Your task to perform on an android device: Open the calendar and show me this week's events? Image 0: 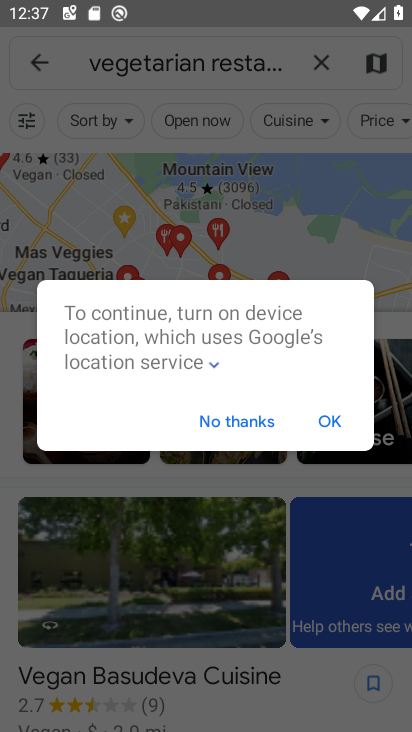
Step 0: press home button
Your task to perform on an android device: Open the calendar and show me this week's events? Image 1: 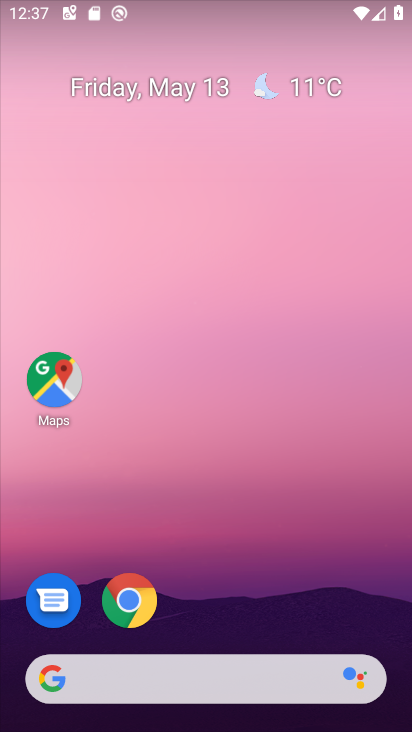
Step 1: drag from (219, 605) to (225, 181)
Your task to perform on an android device: Open the calendar and show me this week's events? Image 2: 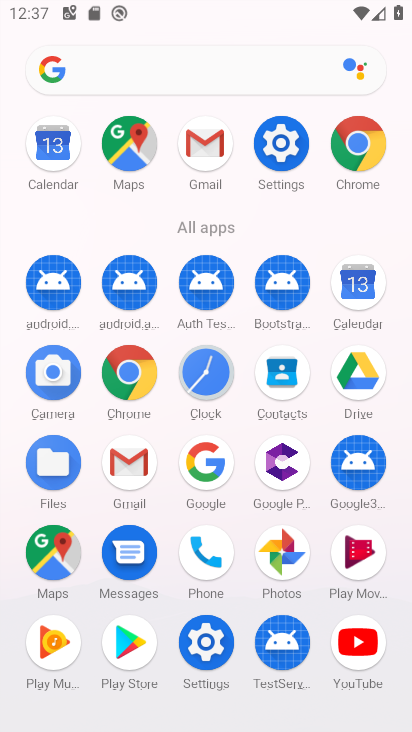
Step 2: click (348, 279)
Your task to perform on an android device: Open the calendar and show me this week's events? Image 3: 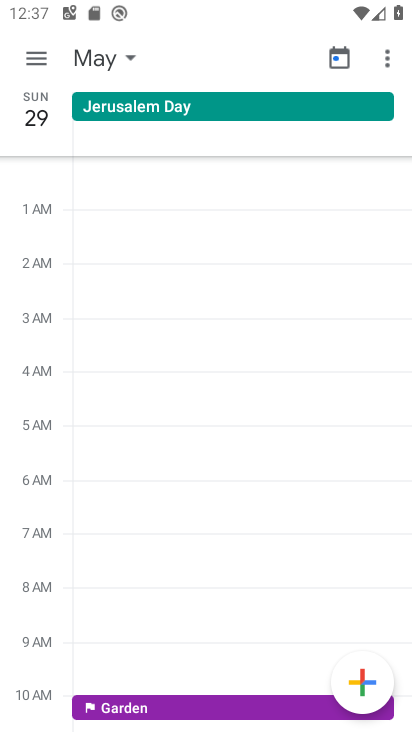
Step 3: click (39, 61)
Your task to perform on an android device: Open the calendar and show me this week's events? Image 4: 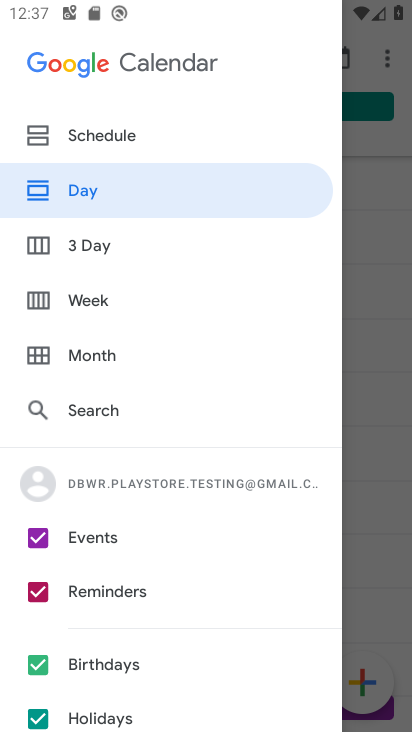
Step 4: click (109, 299)
Your task to perform on an android device: Open the calendar and show me this week's events? Image 5: 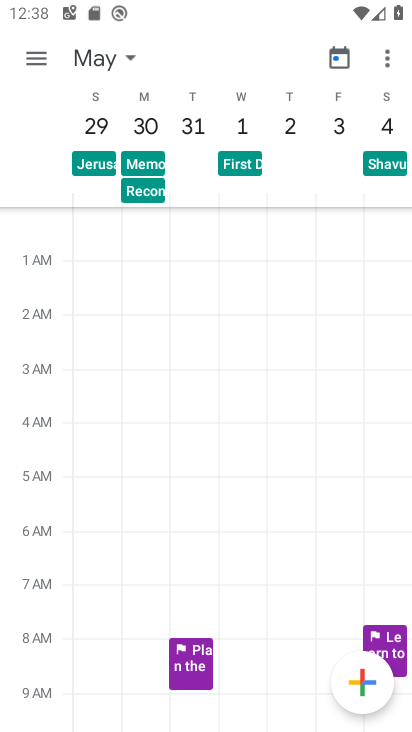
Step 5: click (29, 58)
Your task to perform on an android device: Open the calendar and show me this week's events? Image 6: 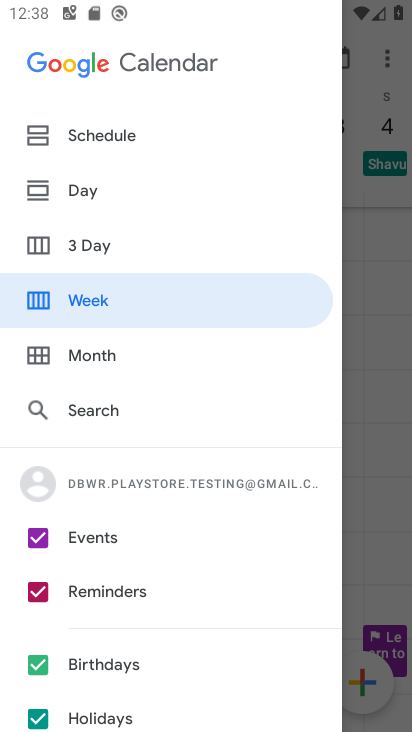
Step 6: click (33, 672)
Your task to perform on an android device: Open the calendar and show me this week's events? Image 7: 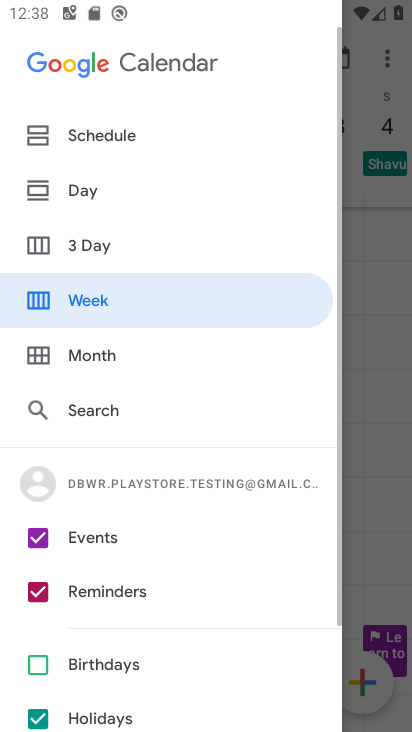
Step 7: click (37, 716)
Your task to perform on an android device: Open the calendar and show me this week's events? Image 8: 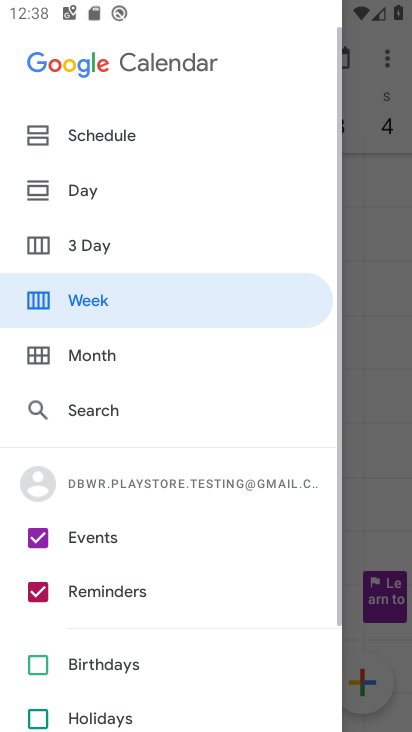
Step 8: click (37, 586)
Your task to perform on an android device: Open the calendar and show me this week's events? Image 9: 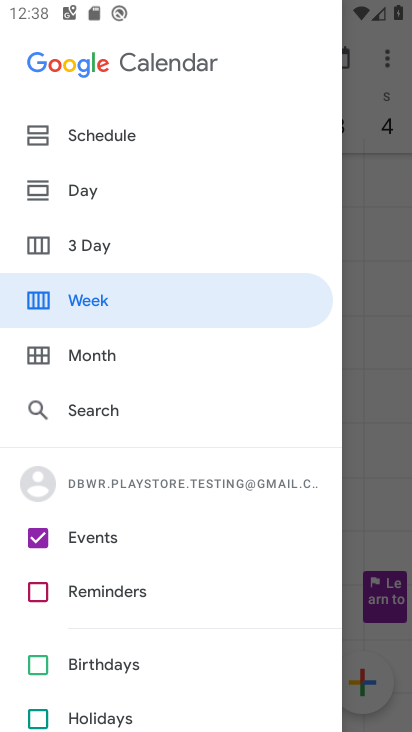
Step 9: click (362, 399)
Your task to perform on an android device: Open the calendar and show me this week's events? Image 10: 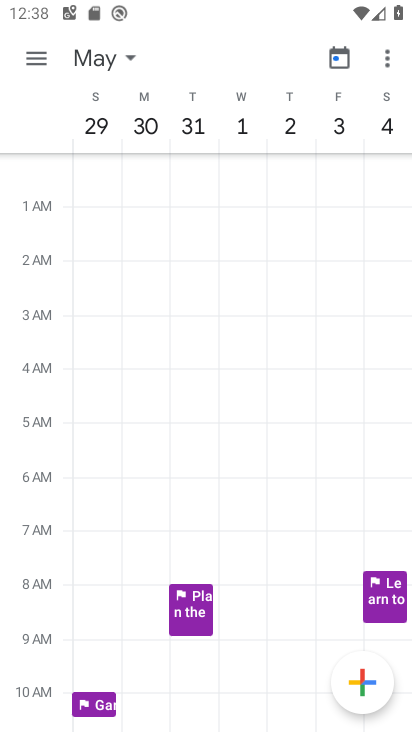
Step 10: task complete